Your task to perform on an android device: open a bookmark in the chrome app Image 0: 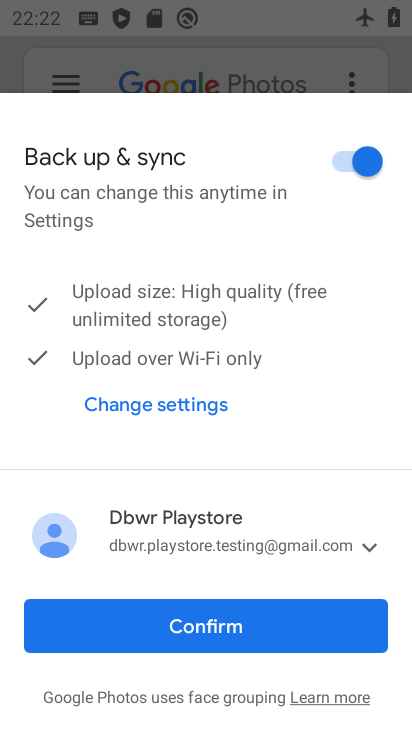
Step 0: press home button
Your task to perform on an android device: open a bookmark in the chrome app Image 1: 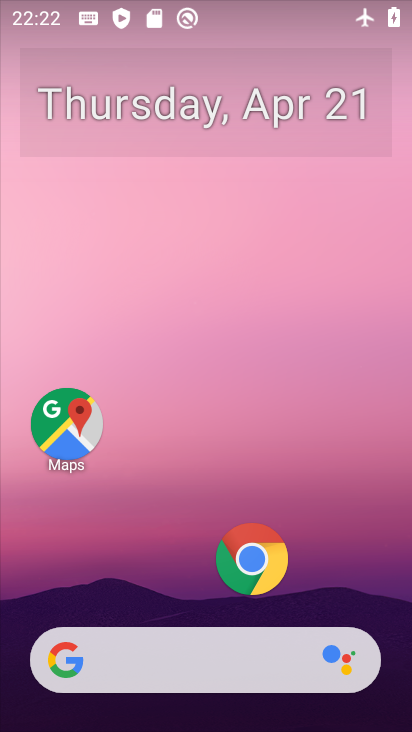
Step 1: click (173, 616)
Your task to perform on an android device: open a bookmark in the chrome app Image 2: 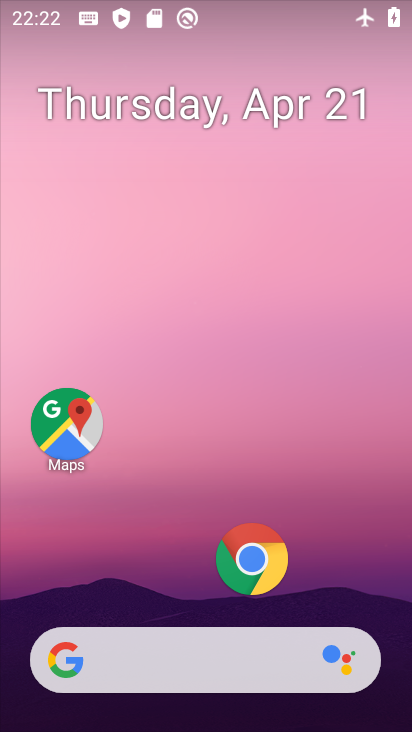
Step 2: click (247, 555)
Your task to perform on an android device: open a bookmark in the chrome app Image 3: 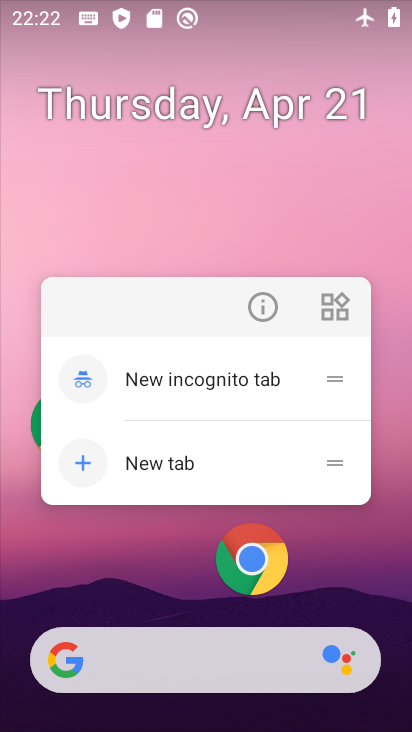
Step 3: click (253, 311)
Your task to perform on an android device: open a bookmark in the chrome app Image 4: 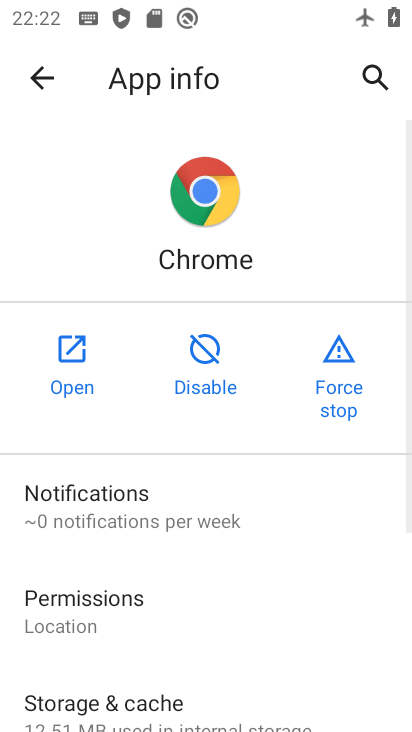
Step 4: click (52, 386)
Your task to perform on an android device: open a bookmark in the chrome app Image 5: 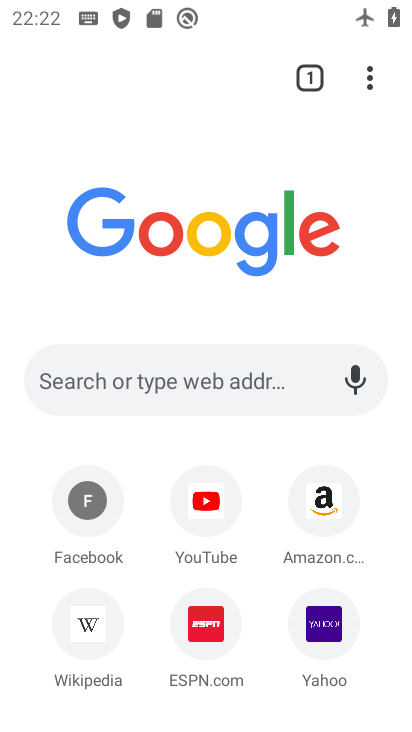
Step 5: click (370, 72)
Your task to perform on an android device: open a bookmark in the chrome app Image 6: 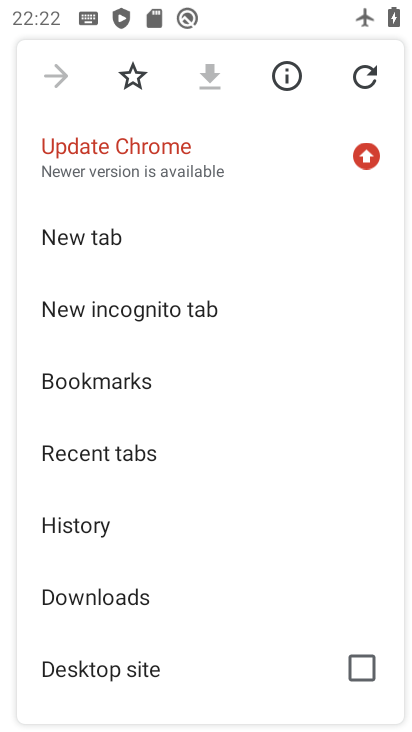
Step 6: click (91, 381)
Your task to perform on an android device: open a bookmark in the chrome app Image 7: 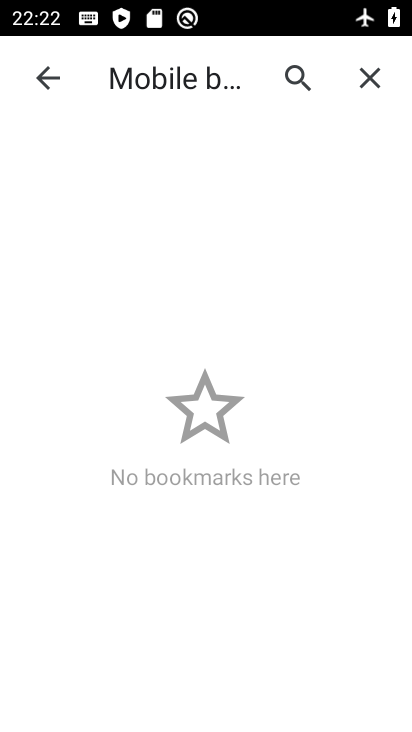
Step 7: task complete